Your task to perform on an android device: What's on the menu at McDonalds? Image 0: 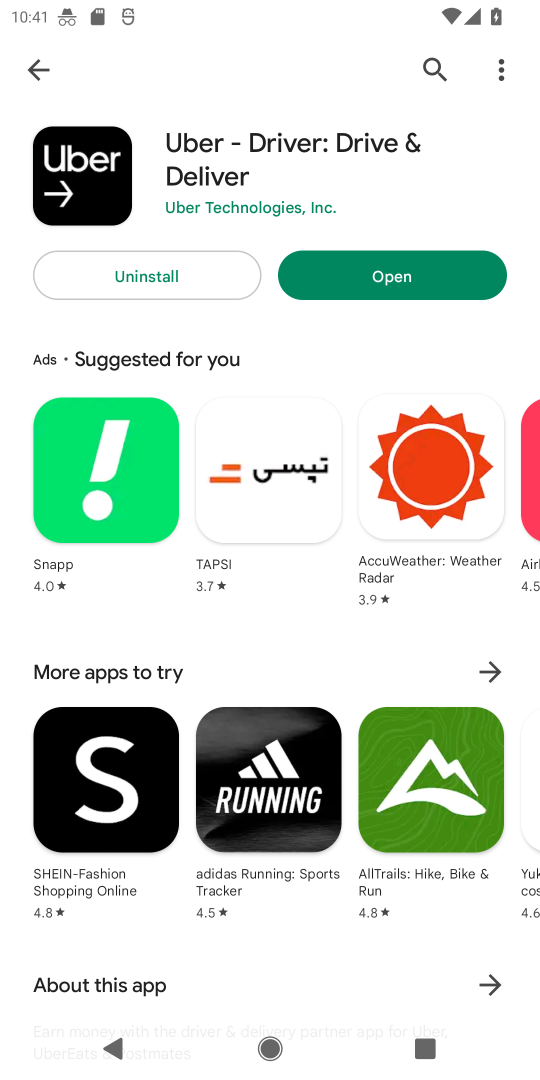
Step 0: press home button
Your task to perform on an android device: What's on the menu at McDonalds? Image 1: 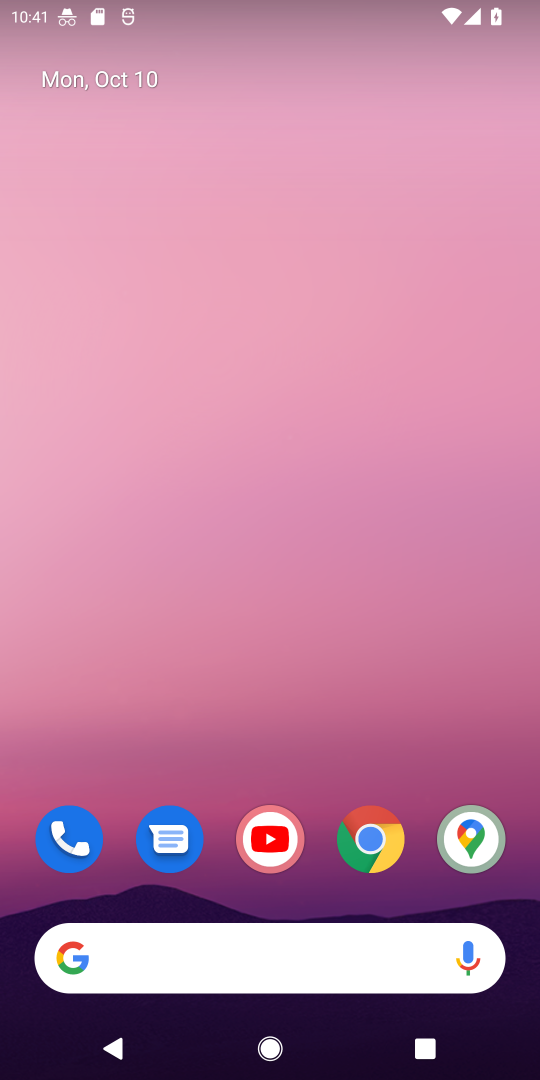
Step 1: drag from (315, 888) to (355, 6)
Your task to perform on an android device: What's on the menu at McDonalds? Image 2: 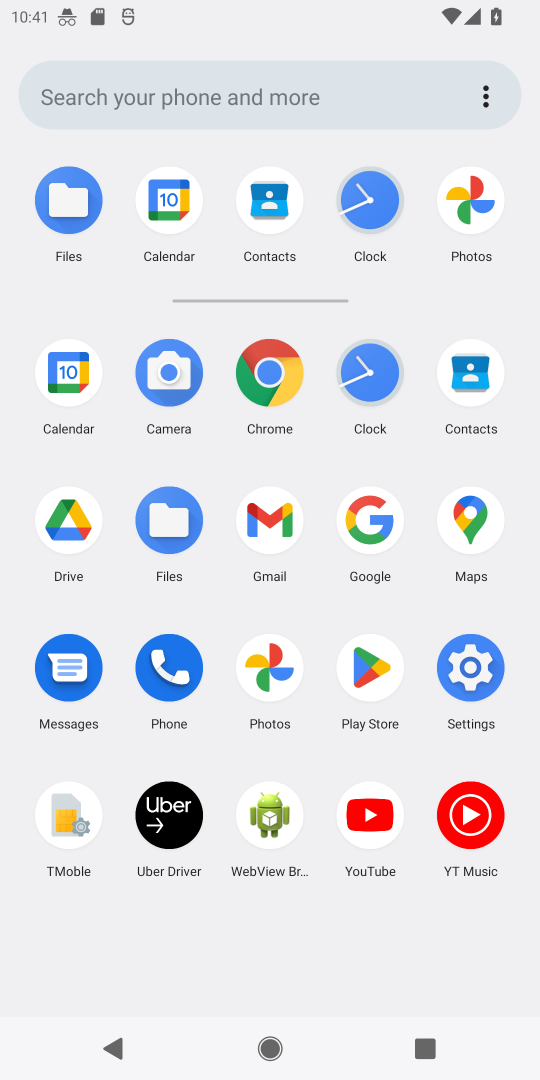
Step 2: click (271, 385)
Your task to perform on an android device: What's on the menu at McDonalds? Image 3: 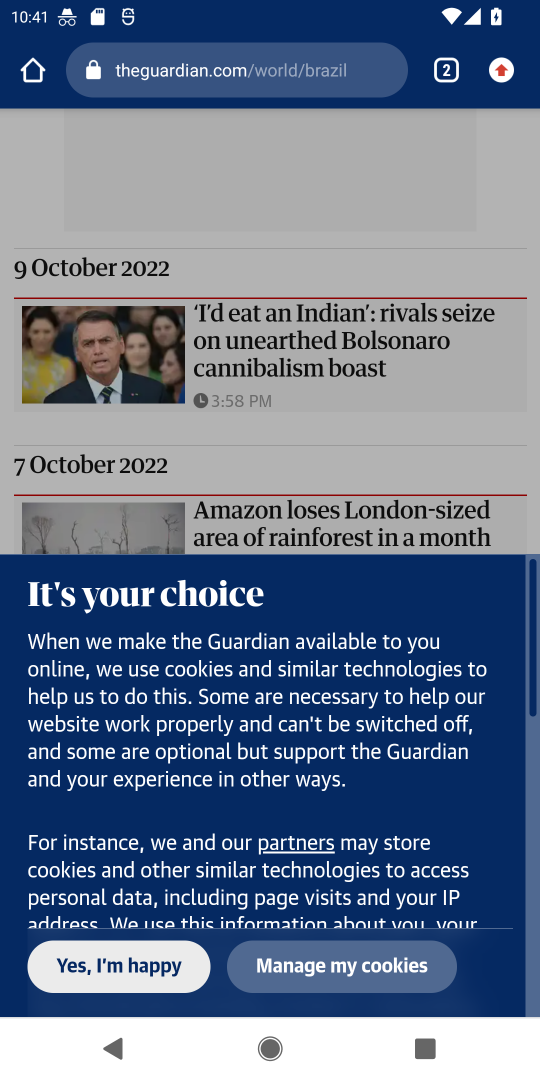
Step 3: click (267, 74)
Your task to perform on an android device: What's on the menu at McDonalds? Image 4: 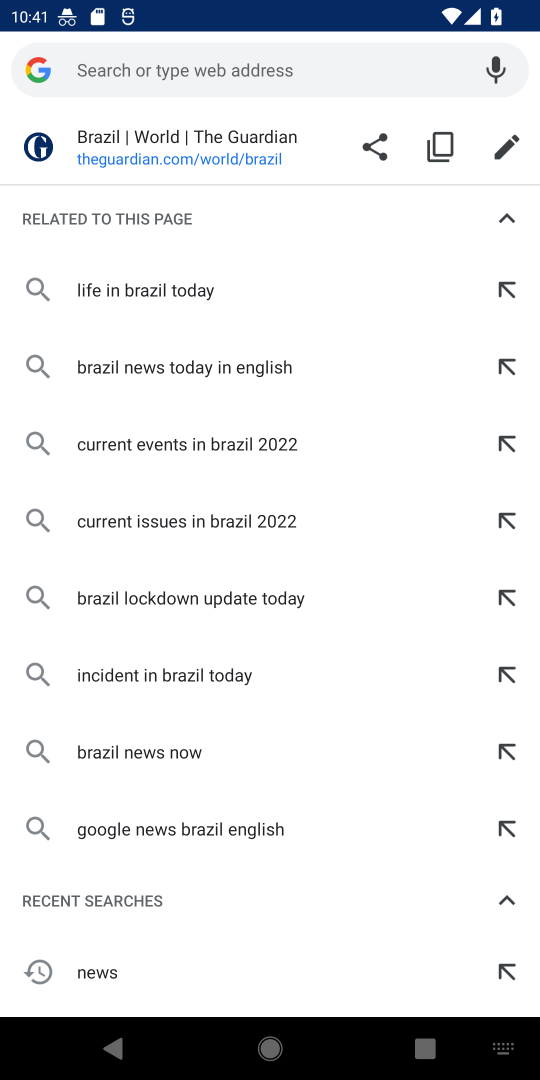
Step 4: type "Mcdonalds menu"
Your task to perform on an android device: What's on the menu at McDonalds? Image 5: 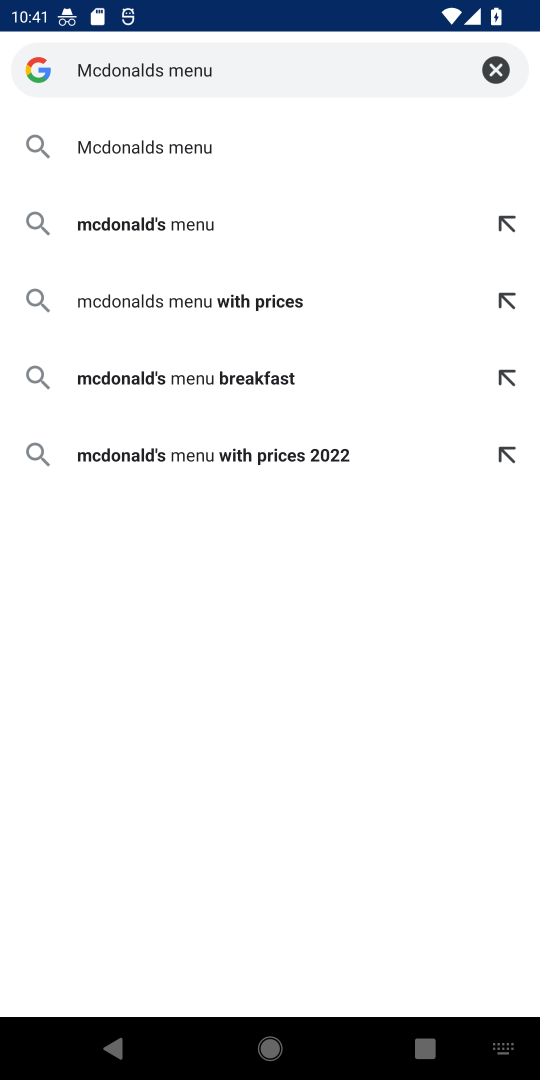
Step 5: press enter
Your task to perform on an android device: What's on the menu at McDonalds? Image 6: 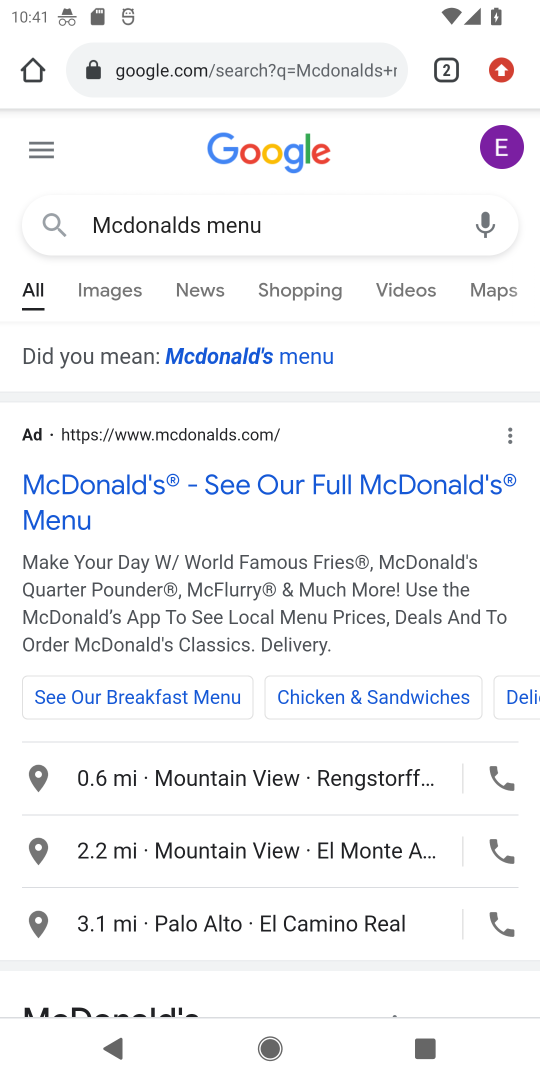
Step 6: drag from (267, 897) to (322, 41)
Your task to perform on an android device: What's on the menu at McDonalds? Image 7: 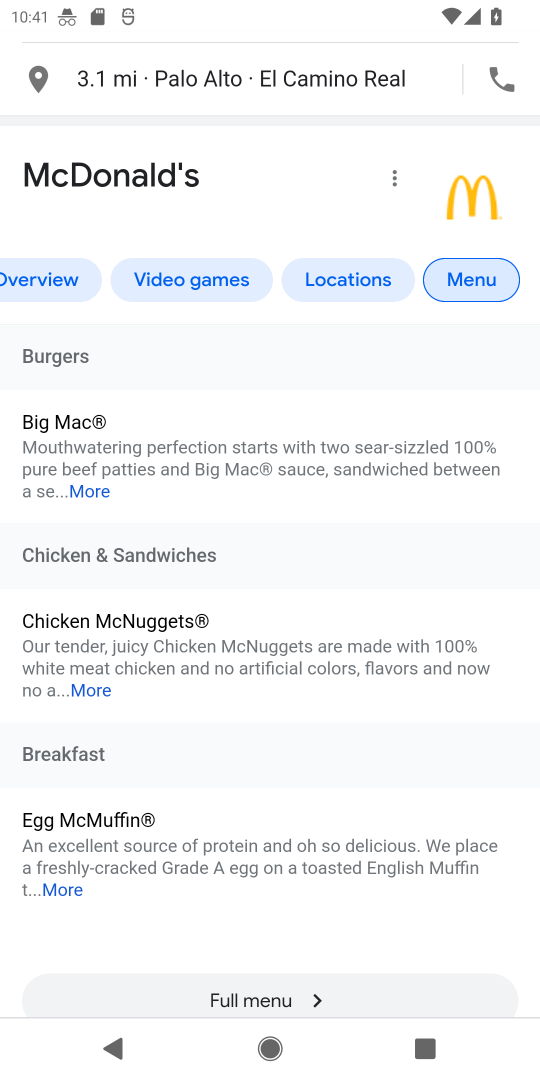
Step 7: drag from (231, 778) to (261, 483)
Your task to perform on an android device: What's on the menu at McDonalds? Image 8: 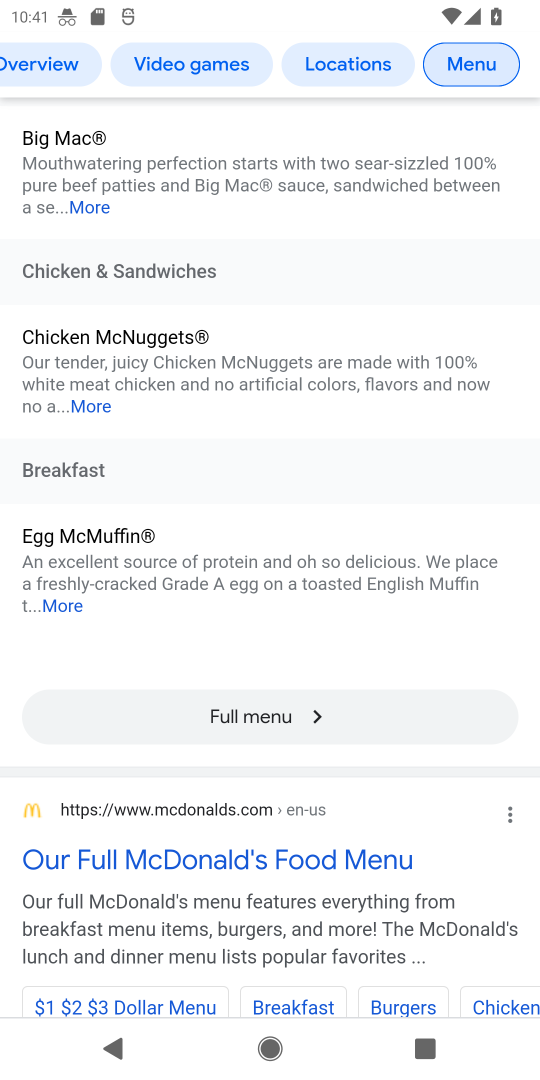
Step 8: click (284, 709)
Your task to perform on an android device: What's on the menu at McDonalds? Image 9: 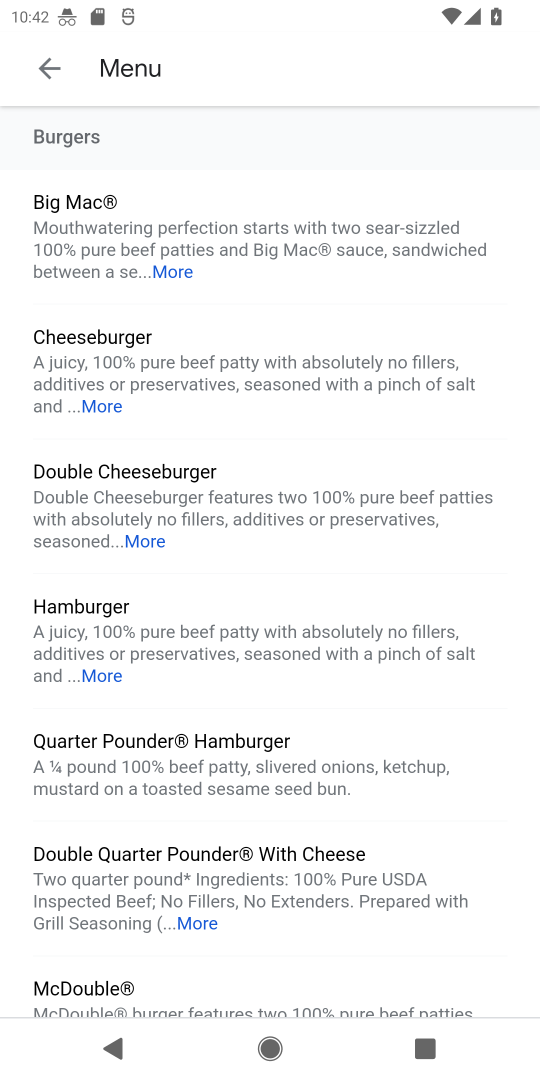
Step 9: task complete